Your task to perform on an android device: turn smart compose on in the gmail app Image 0: 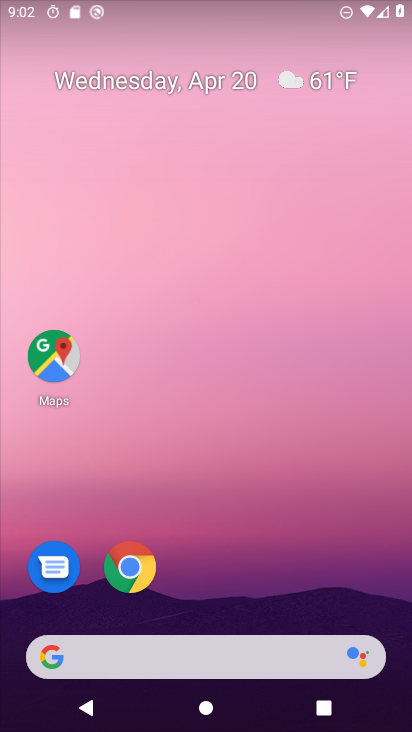
Step 0: drag from (362, 583) to (275, 8)
Your task to perform on an android device: turn smart compose on in the gmail app Image 1: 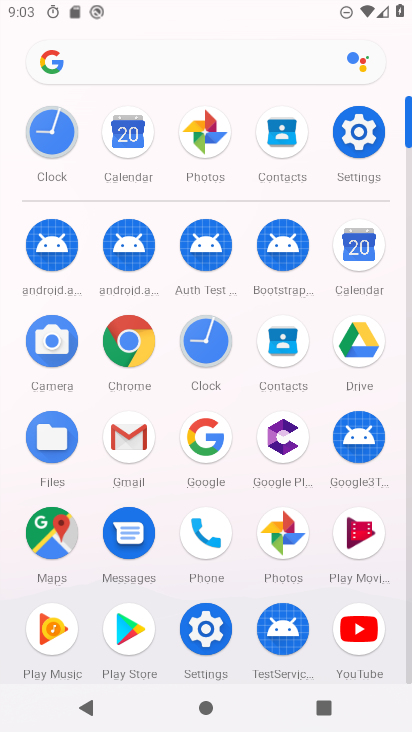
Step 1: click (132, 443)
Your task to perform on an android device: turn smart compose on in the gmail app Image 2: 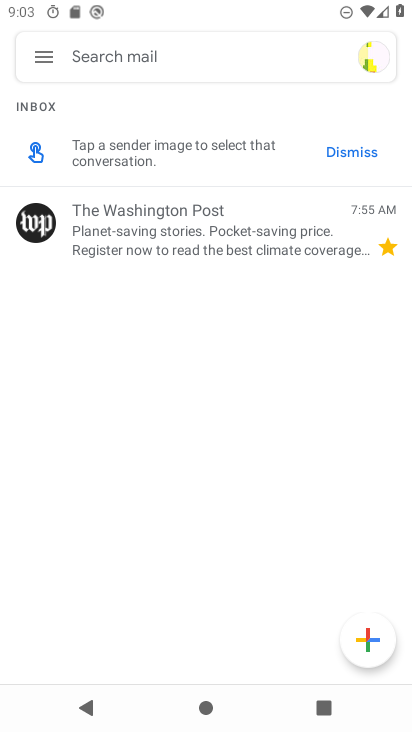
Step 2: click (38, 61)
Your task to perform on an android device: turn smart compose on in the gmail app Image 3: 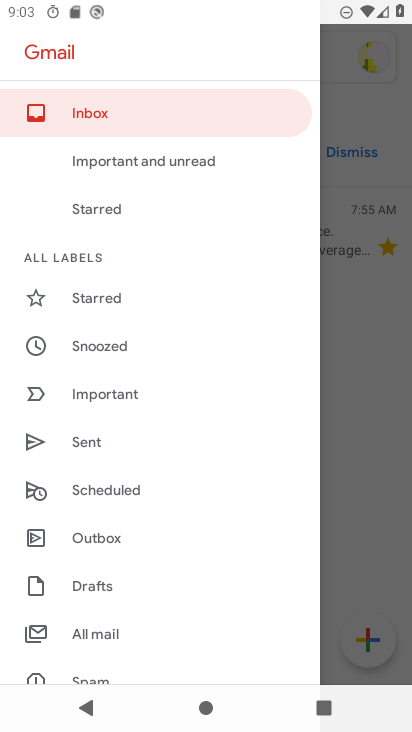
Step 3: drag from (186, 573) to (116, 39)
Your task to perform on an android device: turn smart compose on in the gmail app Image 4: 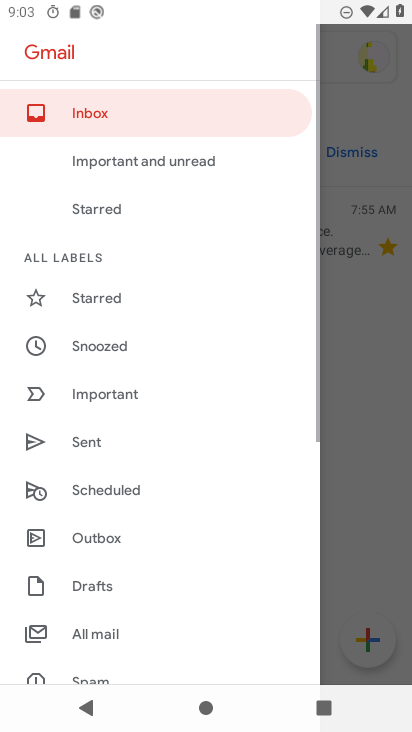
Step 4: drag from (196, 621) to (316, 233)
Your task to perform on an android device: turn smart compose on in the gmail app Image 5: 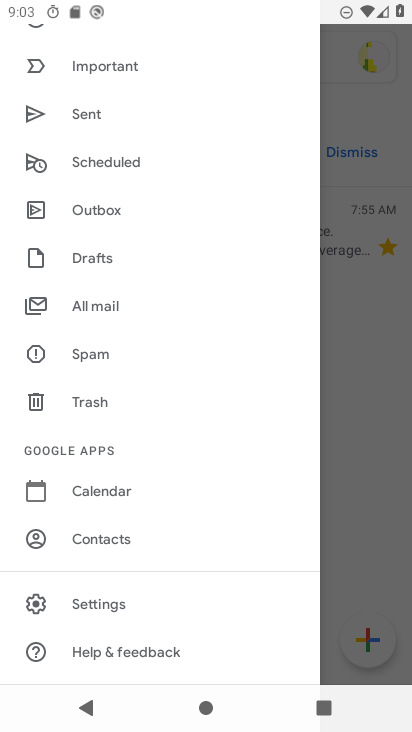
Step 5: click (120, 606)
Your task to perform on an android device: turn smart compose on in the gmail app Image 6: 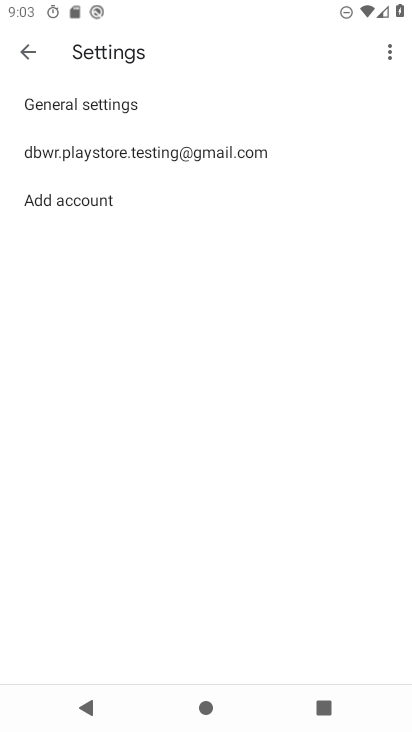
Step 6: click (67, 156)
Your task to perform on an android device: turn smart compose on in the gmail app Image 7: 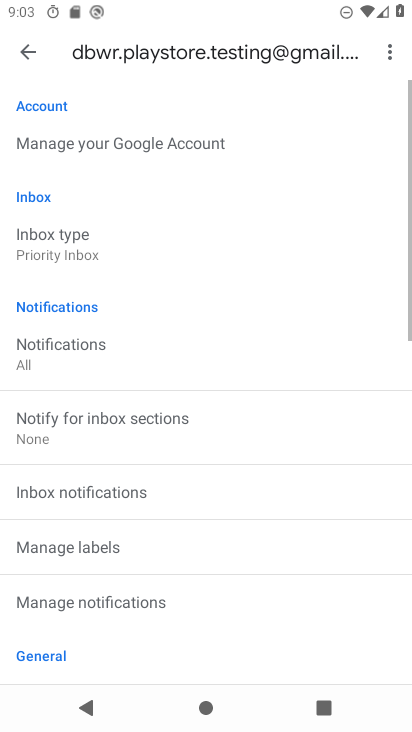
Step 7: task complete